Your task to perform on an android device: toggle sleep mode Image 0: 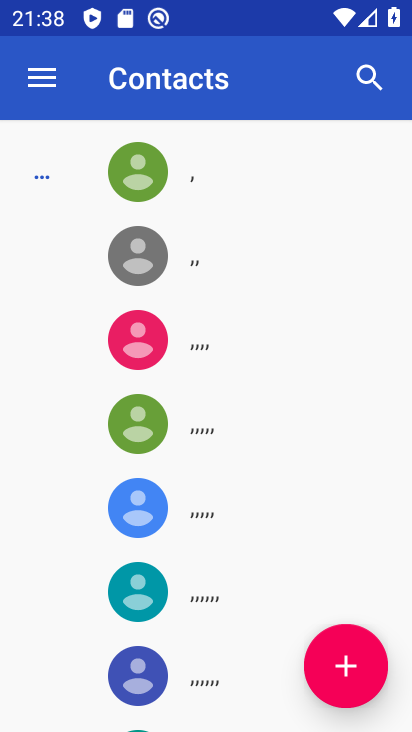
Step 0: press home button
Your task to perform on an android device: toggle sleep mode Image 1: 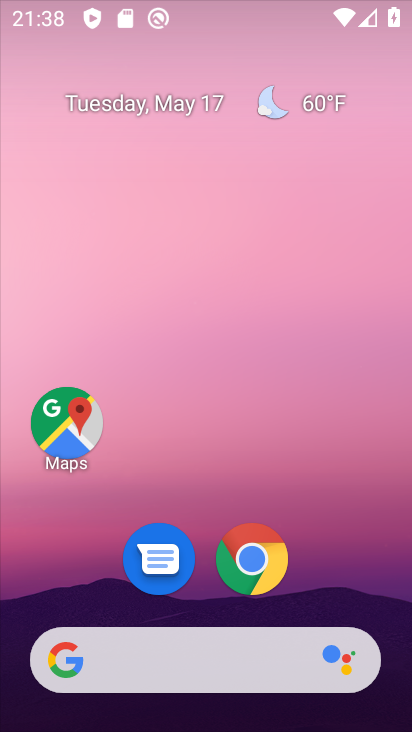
Step 1: drag from (335, 609) to (276, 185)
Your task to perform on an android device: toggle sleep mode Image 2: 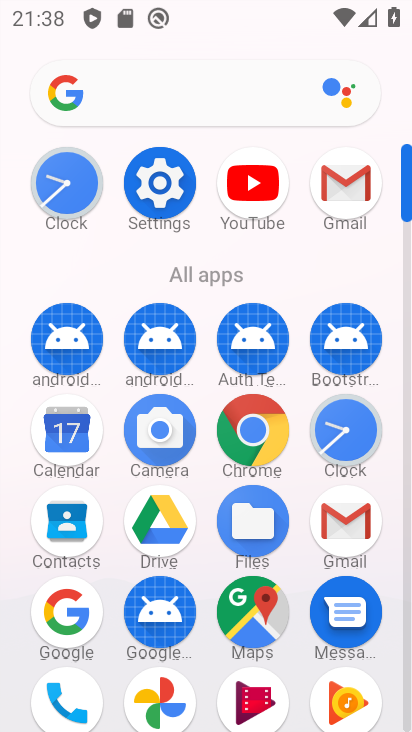
Step 2: click (166, 189)
Your task to perform on an android device: toggle sleep mode Image 3: 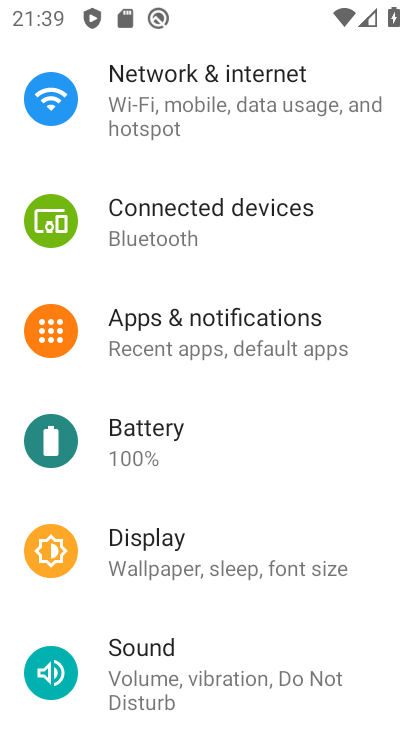
Step 3: click (235, 563)
Your task to perform on an android device: toggle sleep mode Image 4: 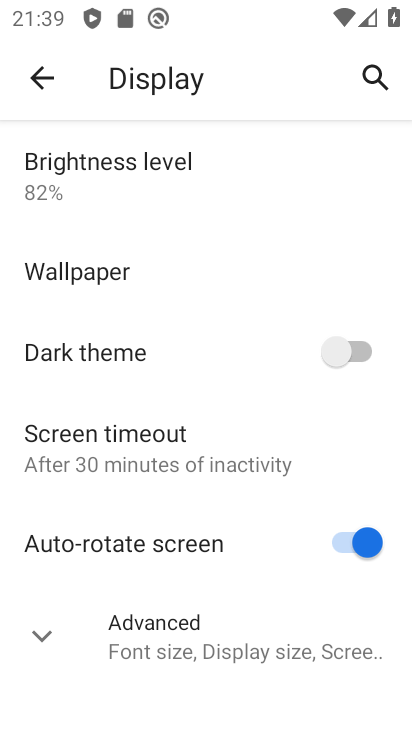
Step 4: click (134, 630)
Your task to perform on an android device: toggle sleep mode Image 5: 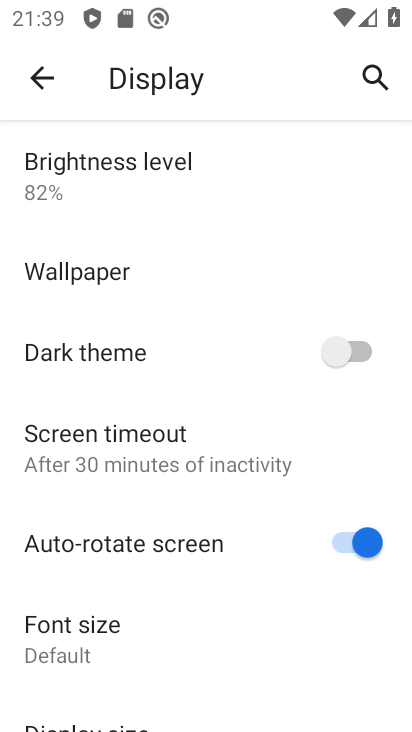
Step 5: click (168, 444)
Your task to perform on an android device: toggle sleep mode Image 6: 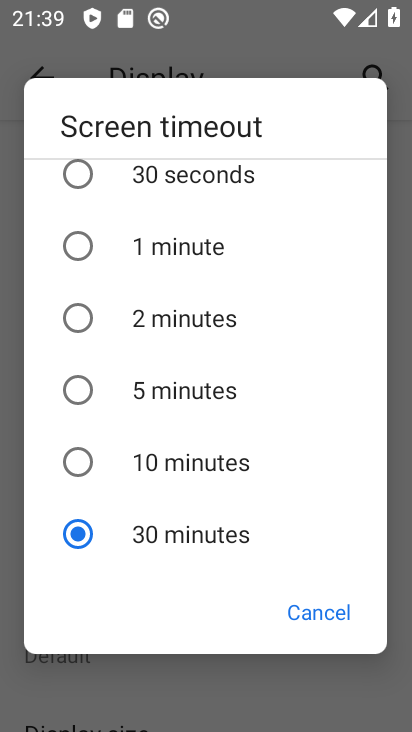
Step 6: click (178, 471)
Your task to perform on an android device: toggle sleep mode Image 7: 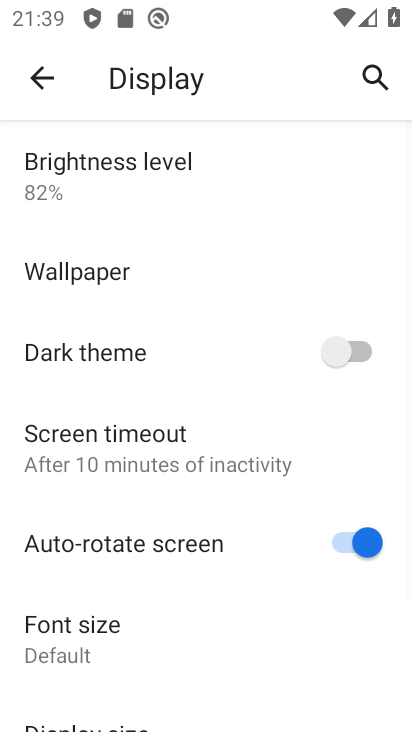
Step 7: task complete